Your task to perform on an android device: turn off location Image 0: 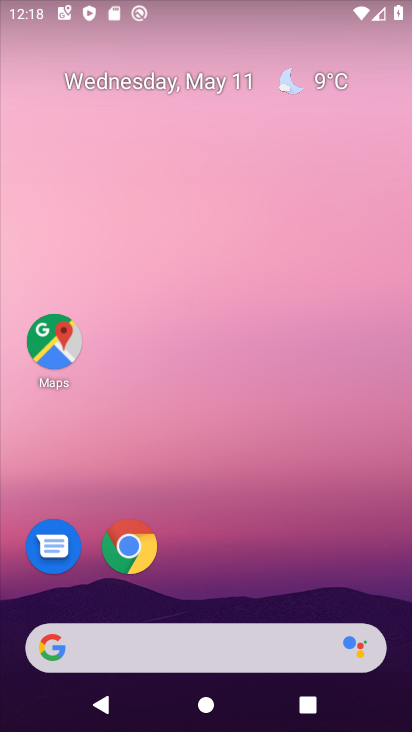
Step 0: drag from (328, 595) to (307, 23)
Your task to perform on an android device: turn off location Image 1: 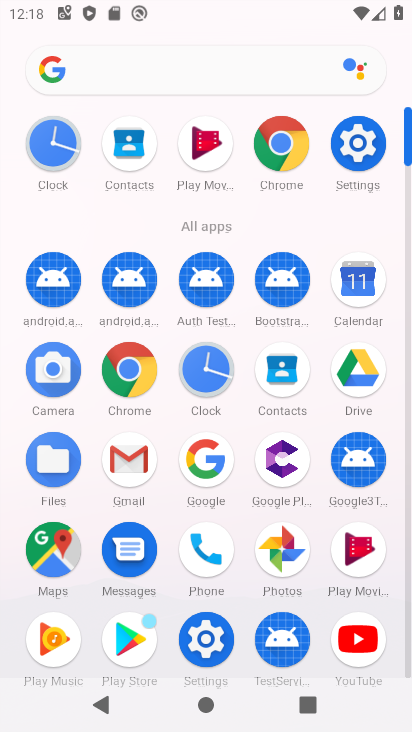
Step 1: click (359, 163)
Your task to perform on an android device: turn off location Image 2: 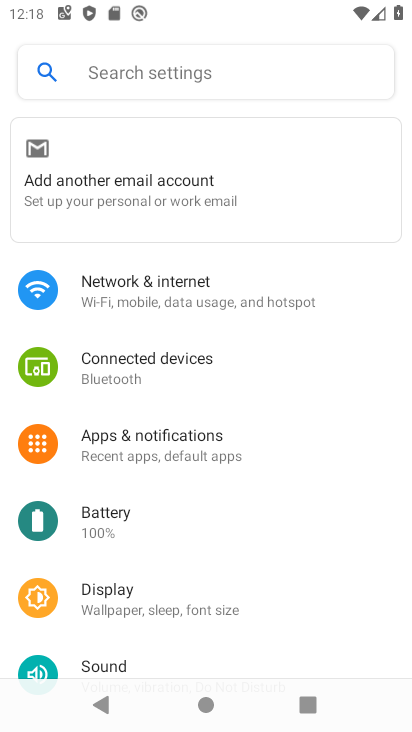
Step 2: drag from (231, 675) to (230, 148)
Your task to perform on an android device: turn off location Image 3: 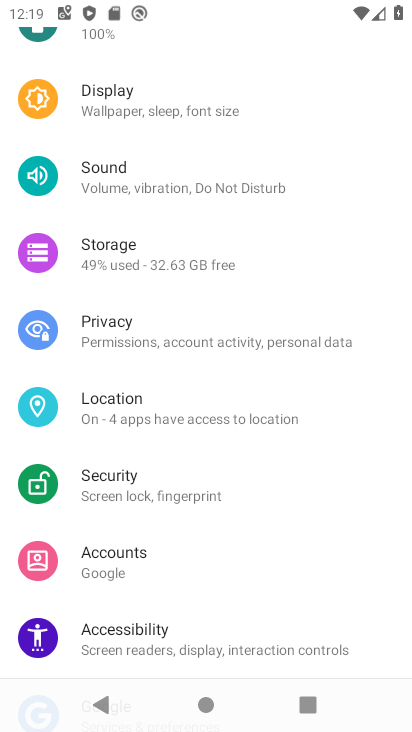
Step 3: click (207, 406)
Your task to perform on an android device: turn off location Image 4: 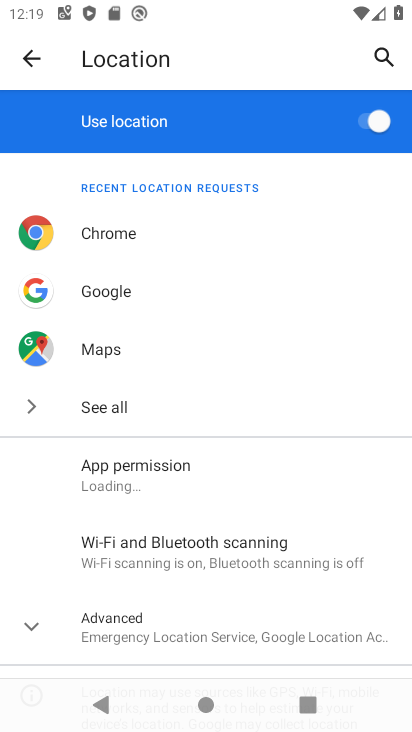
Step 4: click (365, 116)
Your task to perform on an android device: turn off location Image 5: 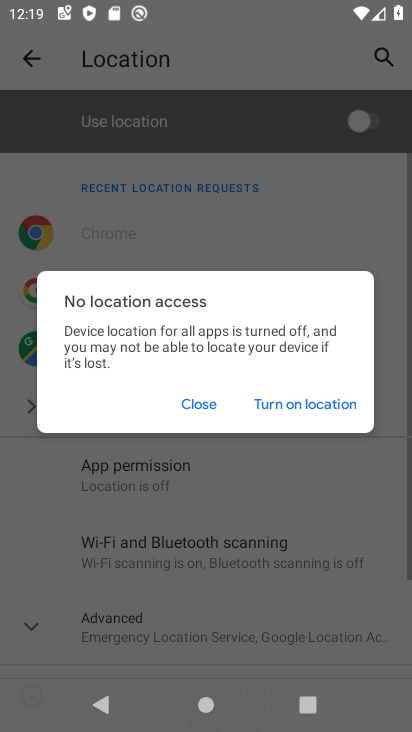
Step 5: task complete